Your task to perform on an android device: add a contact in the contacts app Image 0: 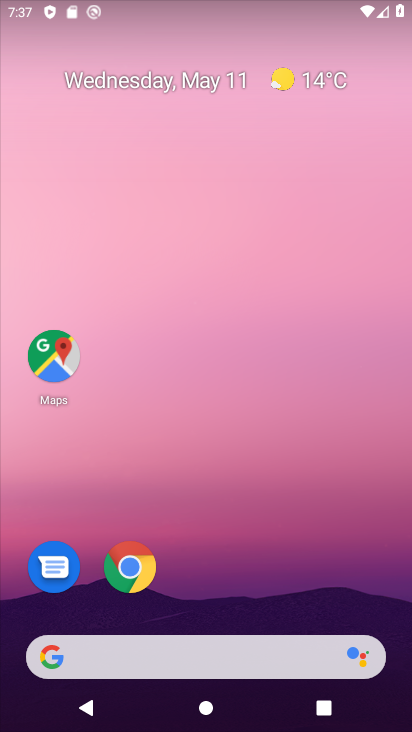
Step 0: drag from (205, 602) to (255, 215)
Your task to perform on an android device: add a contact in the contacts app Image 1: 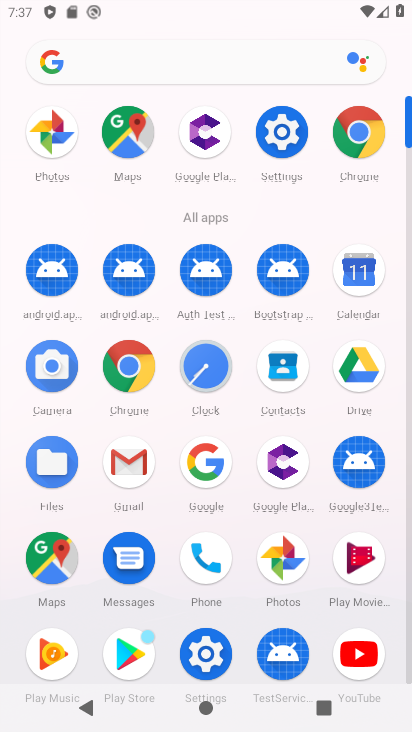
Step 1: click (262, 401)
Your task to perform on an android device: add a contact in the contacts app Image 2: 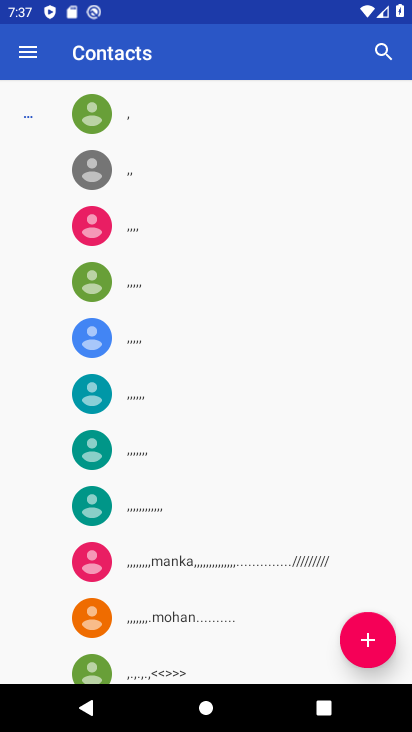
Step 2: click (355, 646)
Your task to perform on an android device: add a contact in the contacts app Image 3: 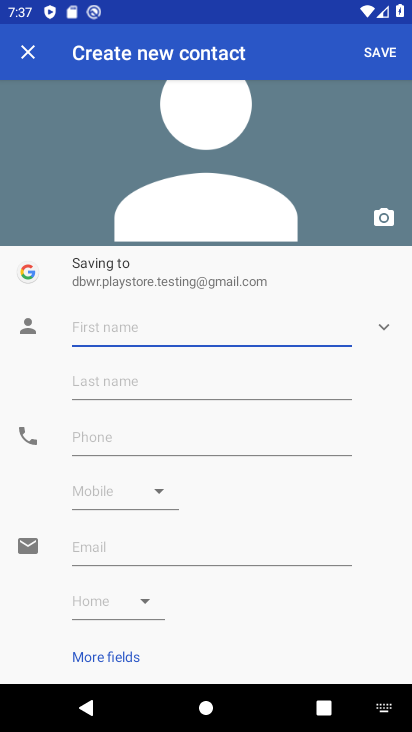
Step 3: click (124, 332)
Your task to perform on an android device: add a contact in the contacts app Image 4: 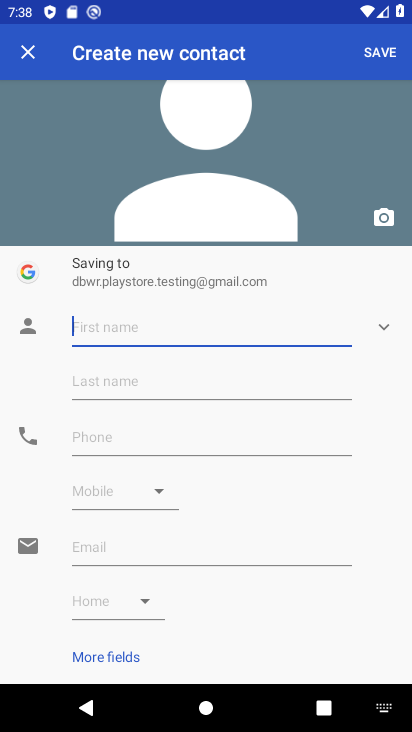
Step 4: type "Vivek"
Your task to perform on an android device: add a contact in the contacts app Image 5: 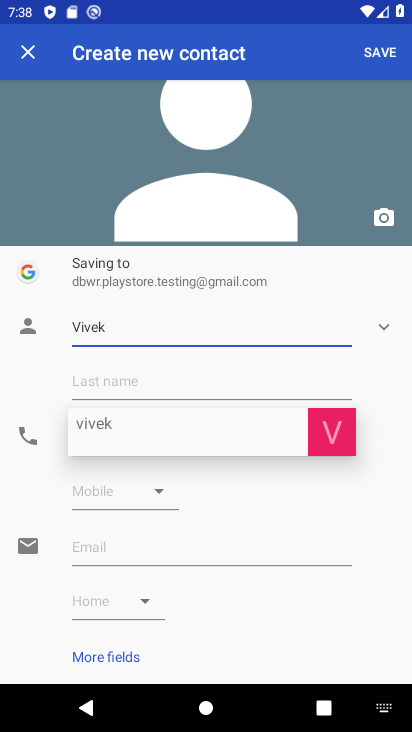
Step 5: click (195, 392)
Your task to perform on an android device: add a contact in the contacts app Image 6: 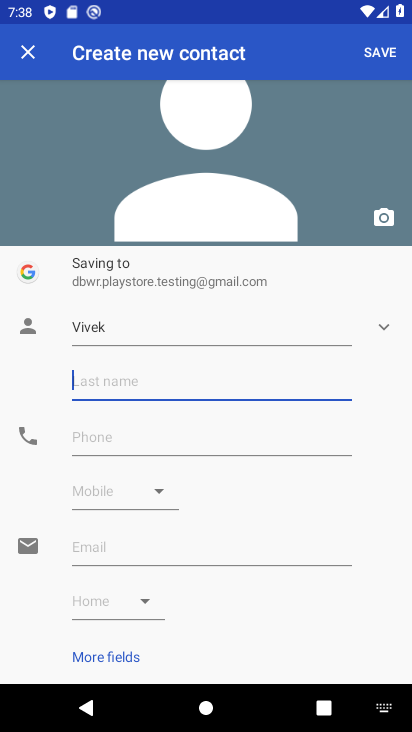
Step 6: type "sharma"
Your task to perform on an android device: add a contact in the contacts app Image 7: 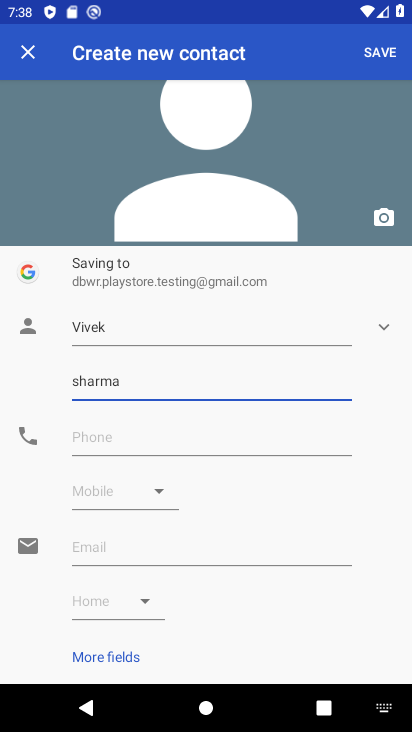
Step 7: click (241, 428)
Your task to perform on an android device: add a contact in the contacts app Image 8: 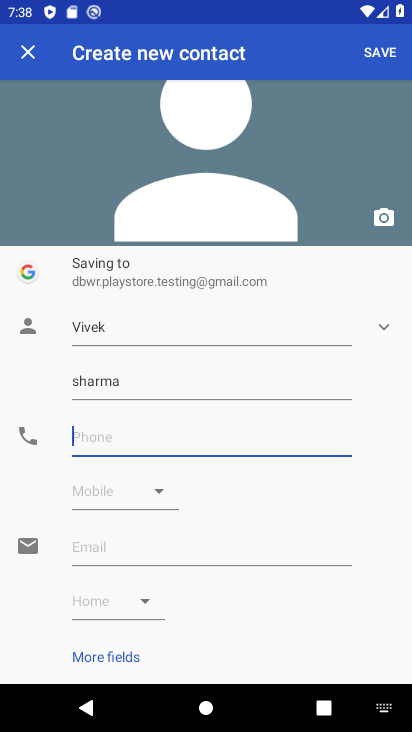
Step 8: type "8998900000"
Your task to perform on an android device: add a contact in the contacts app Image 9: 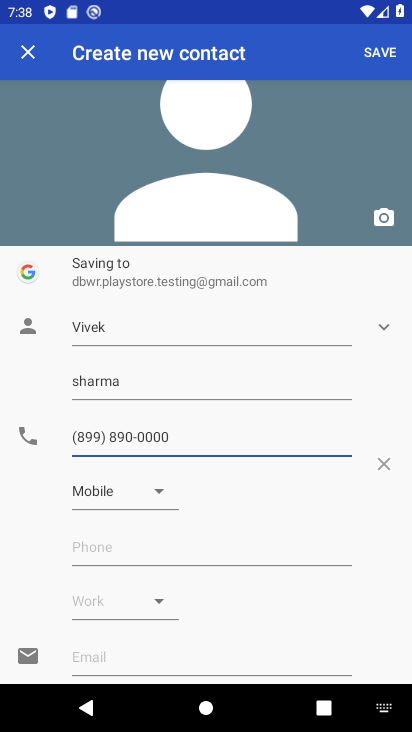
Step 9: click (377, 55)
Your task to perform on an android device: add a contact in the contacts app Image 10: 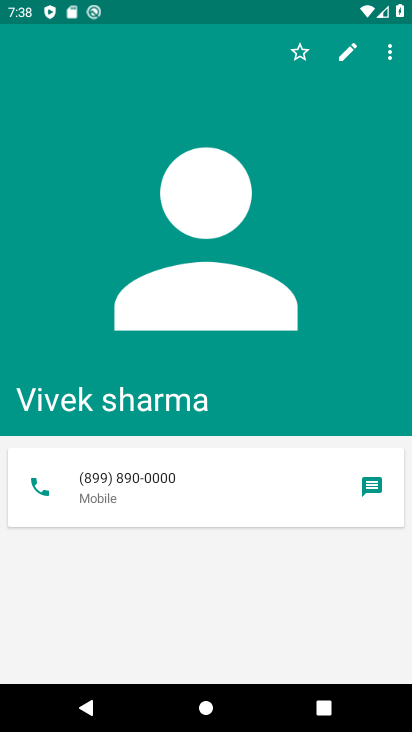
Step 10: task complete